Your task to perform on an android device: Go to network settings Image 0: 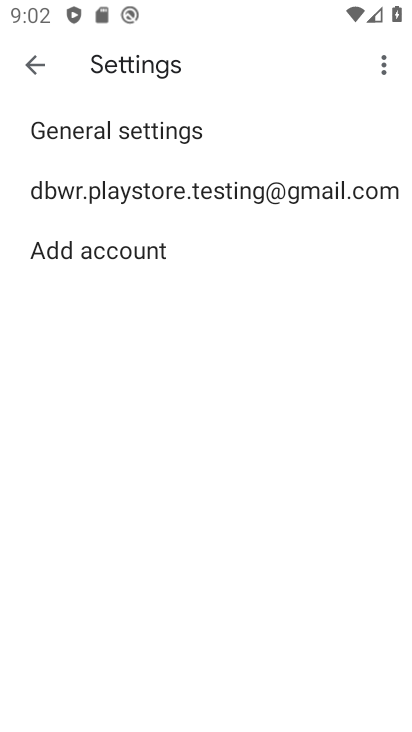
Step 0: press home button
Your task to perform on an android device: Go to network settings Image 1: 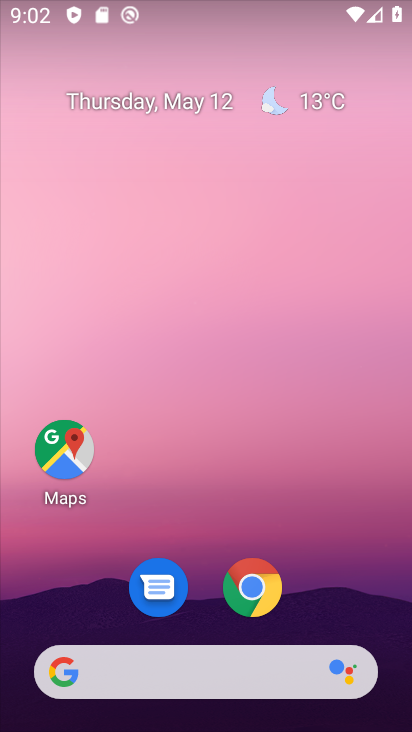
Step 1: drag from (390, 418) to (51, 0)
Your task to perform on an android device: Go to network settings Image 2: 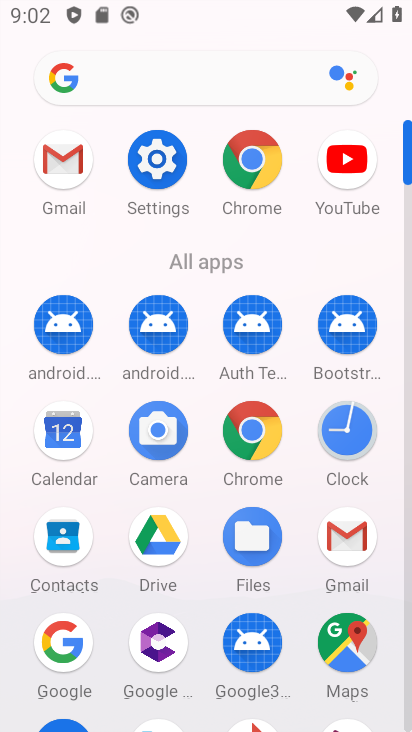
Step 2: click (157, 156)
Your task to perform on an android device: Go to network settings Image 3: 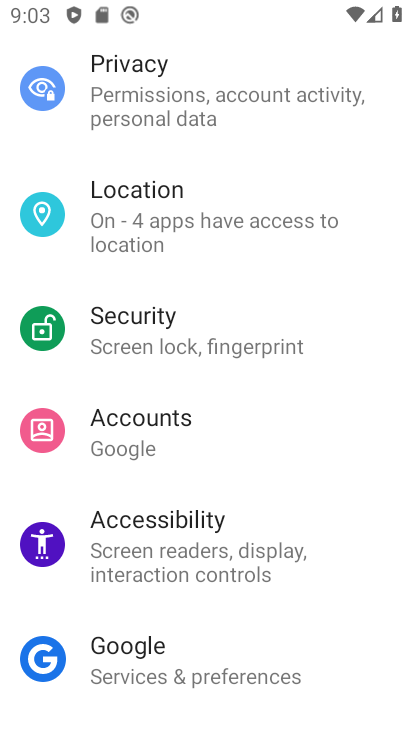
Step 3: drag from (136, 166) to (101, 492)
Your task to perform on an android device: Go to network settings Image 4: 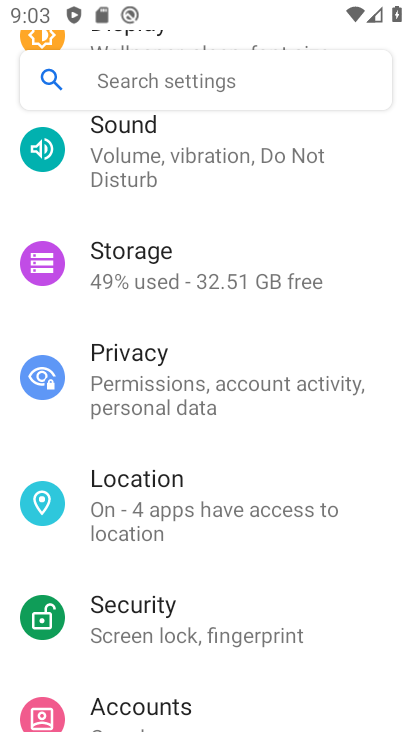
Step 4: drag from (185, 243) to (180, 541)
Your task to perform on an android device: Go to network settings Image 5: 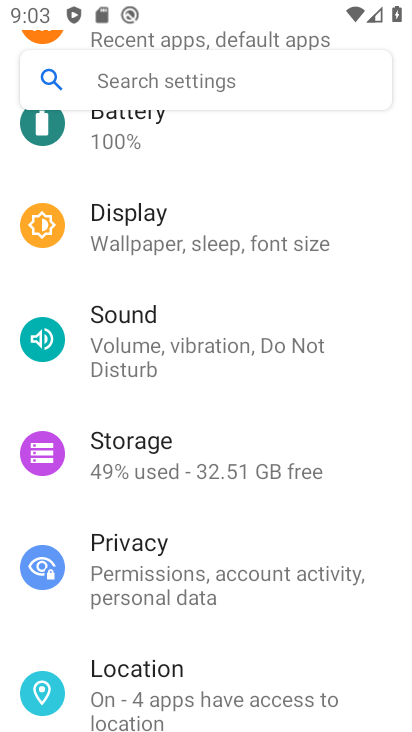
Step 5: drag from (198, 169) to (152, 565)
Your task to perform on an android device: Go to network settings Image 6: 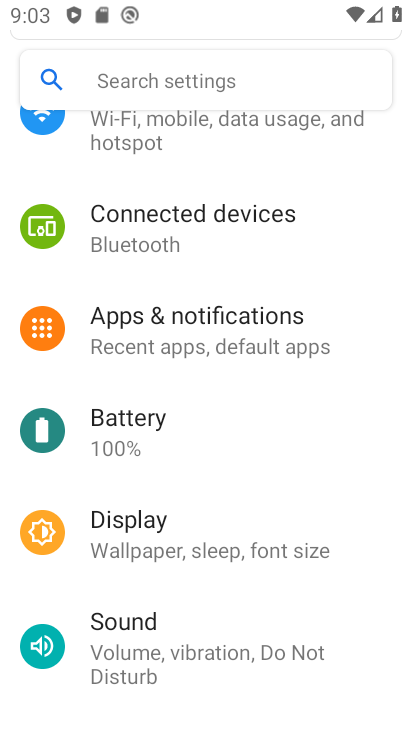
Step 6: drag from (165, 240) to (183, 674)
Your task to perform on an android device: Go to network settings Image 7: 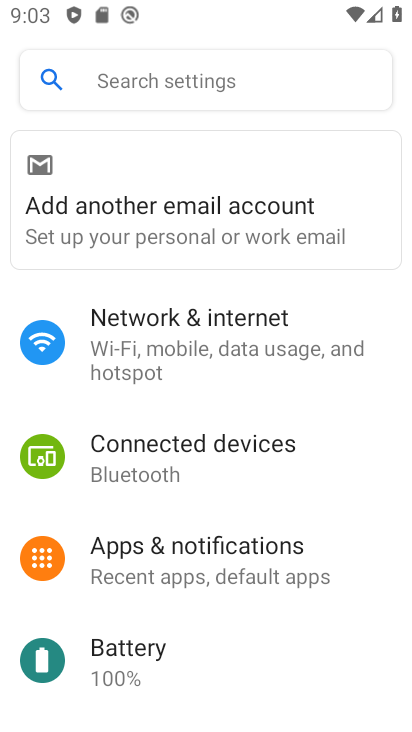
Step 7: click (171, 363)
Your task to perform on an android device: Go to network settings Image 8: 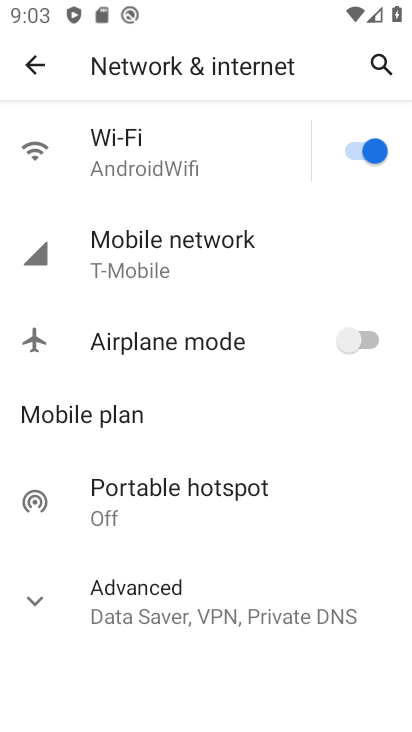
Step 8: task complete